Your task to perform on an android device: show emergency info Image 0: 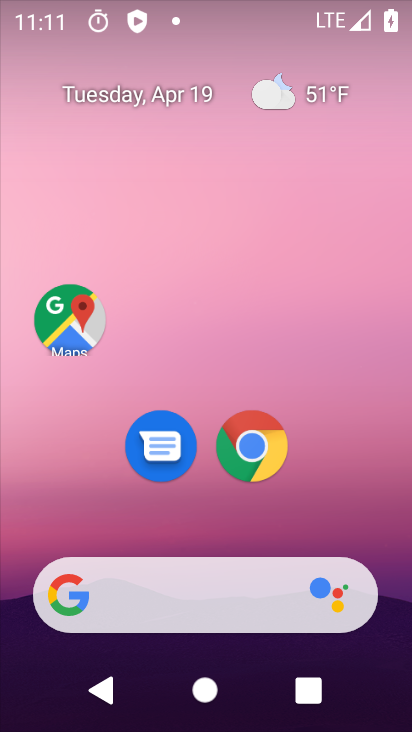
Step 0: drag from (382, 496) to (383, 119)
Your task to perform on an android device: show emergency info Image 1: 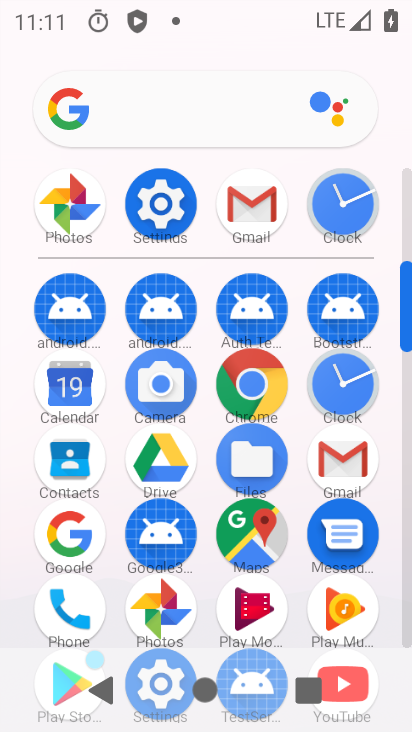
Step 1: click (171, 213)
Your task to perform on an android device: show emergency info Image 2: 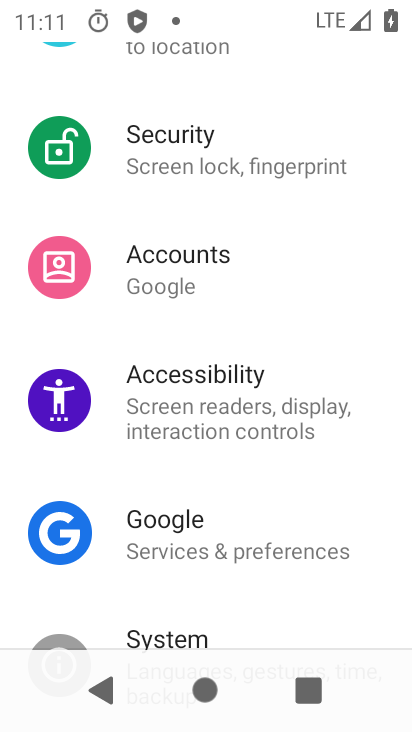
Step 2: drag from (330, 583) to (328, 262)
Your task to perform on an android device: show emergency info Image 3: 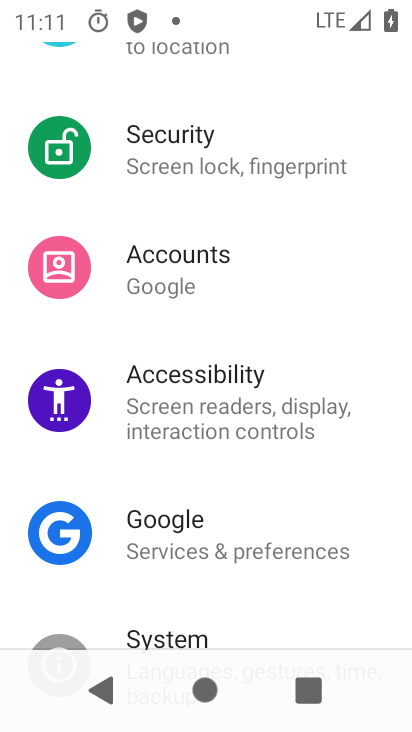
Step 3: drag from (374, 632) to (347, 171)
Your task to perform on an android device: show emergency info Image 4: 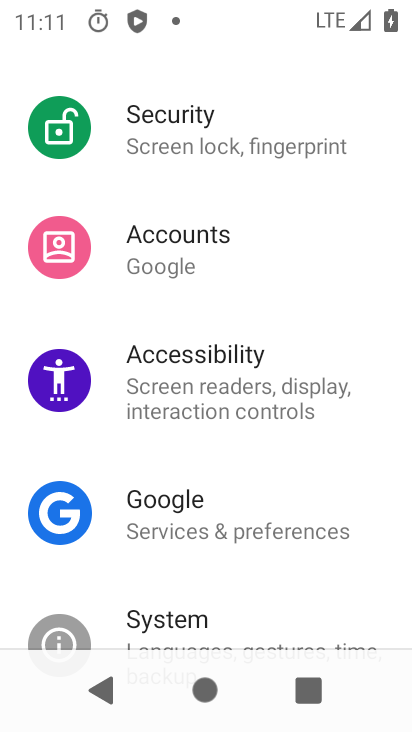
Step 4: drag from (367, 414) to (356, 260)
Your task to perform on an android device: show emergency info Image 5: 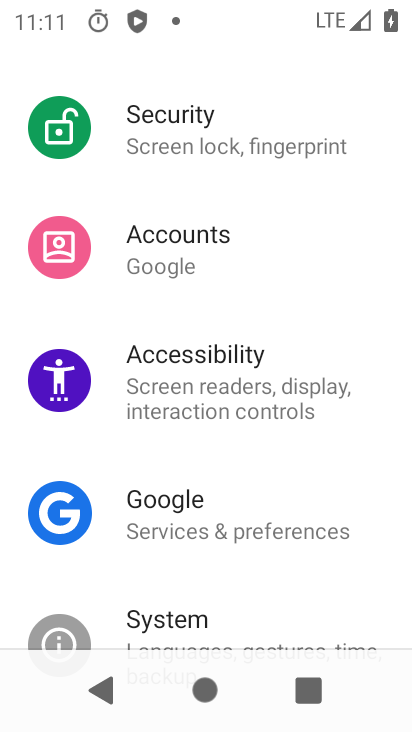
Step 5: drag from (373, 589) to (374, 144)
Your task to perform on an android device: show emergency info Image 6: 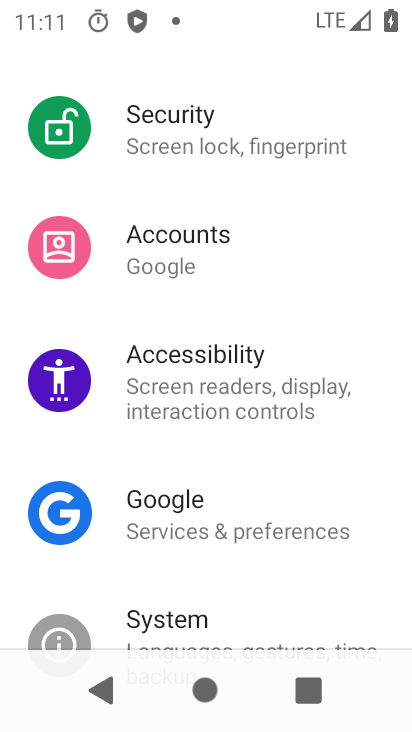
Step 6: drag from (385, 167) to (384, 132)
Your task to perform on an android device: show emergency info Image 7: 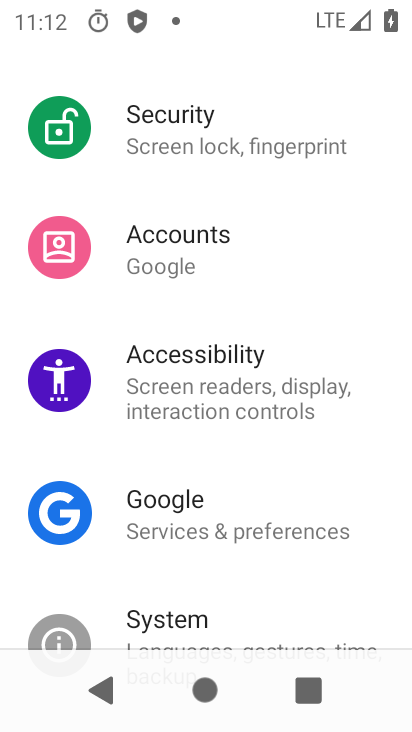
Step 7: drag from (366, 545) to (352, 215)
Your task to perform on an android device: show emergency info Image 8: 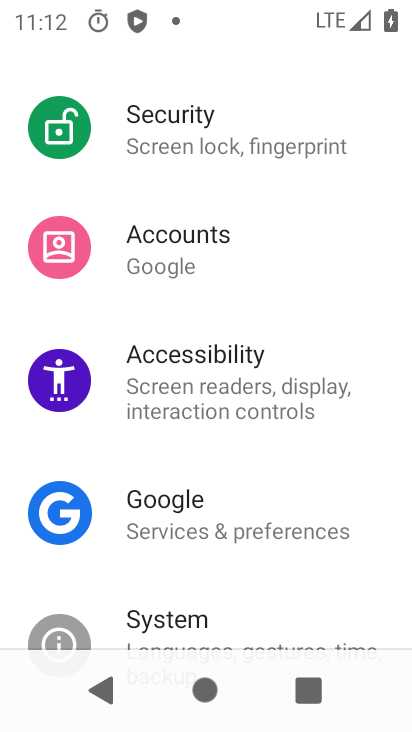
Step 8: drag from (376, 545) to (394, 203)
Your task to perform on an android device: show emergency info Image 9: 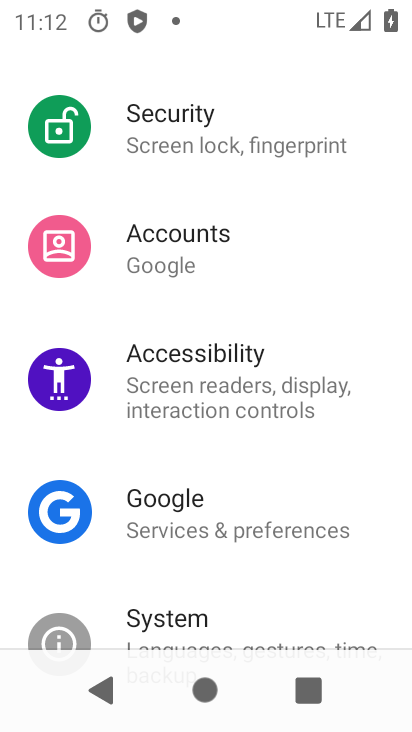
Step 9: drag from (378, 385) to (365, 196)
Your task to perform on an android device: show emergency info Image 10: 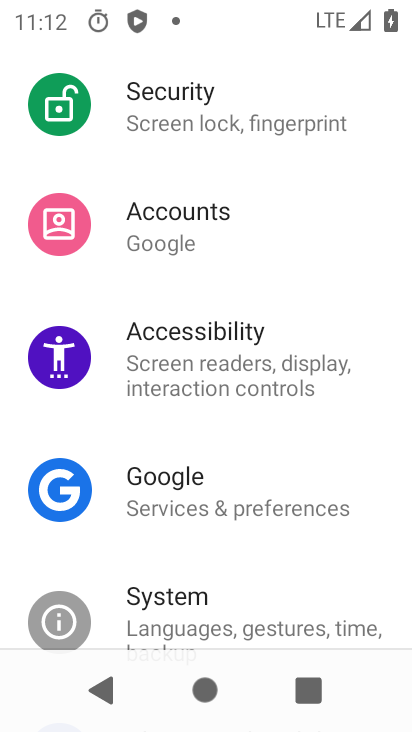
Step 10: drag from (377, 630) to (376, 198)
Your task to perform on an android device: show emergency info Image 11: 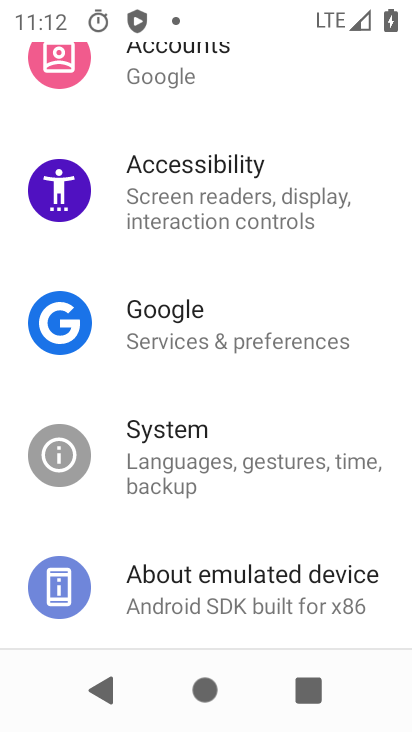
Step 11: click (229, 594)
Your task to perform on an android device: show emergency info Image 12: 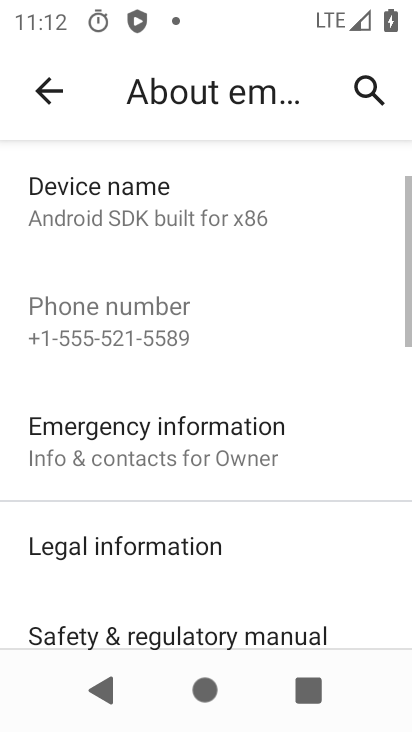
Step 12: click (188, 433)
Your task to perform on an android device: show emergency info Image 13: 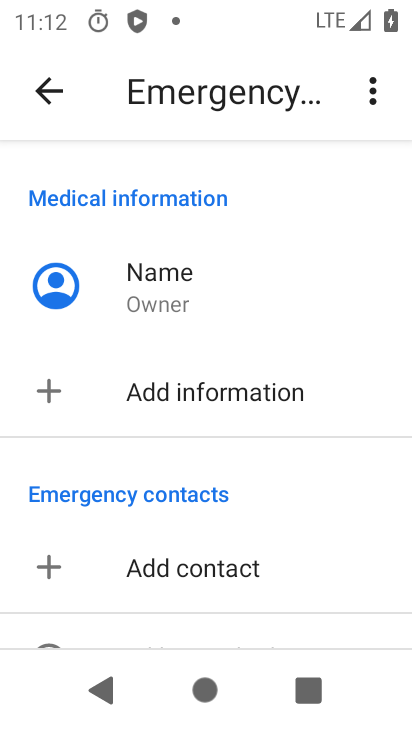
Step 13: task complete